Your task to perform on an android device: Search for Italian restaurants on Maps Image 0: 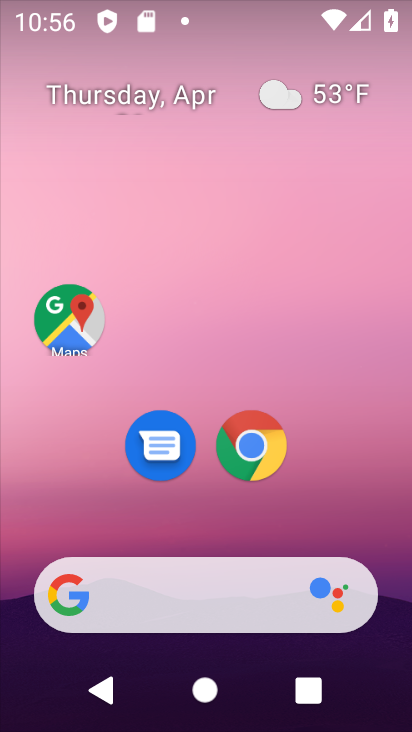
Step 0: drag from (185, 596) to (321, 107)
Your task to perform on an android device: Search for Italian restaurants on Maps Image 1: 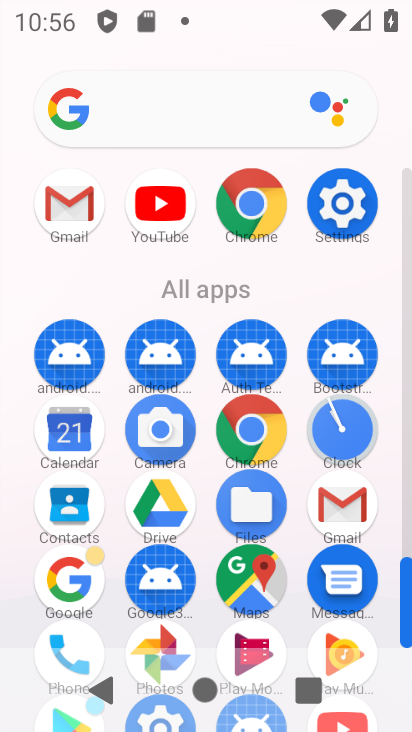
Step 1: click (260, 587)
Your task to perform on an android device: Search for Italian restaurants on Maps Image 2: 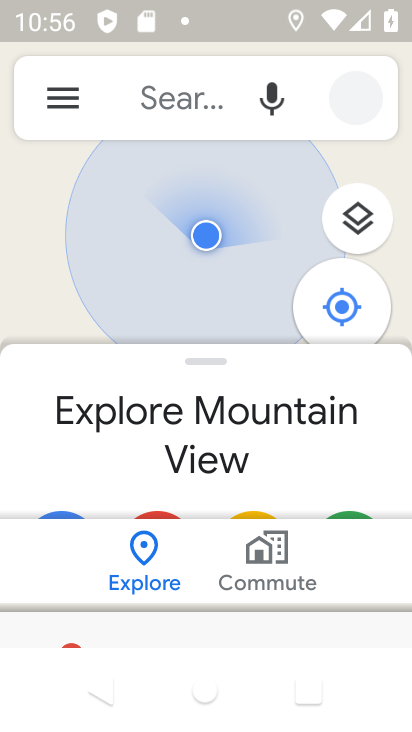
Step 2: click (180, 99)
Your task to perform on an android device: Search for Italian restaurants on Maps Image 3: 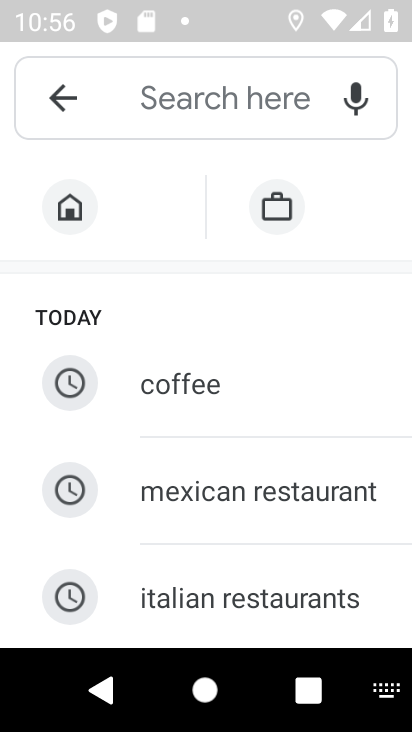
Step 3: click (186, 595)
Your task to perform on an android device: Search for Italian restaurants on Maps Image 4: 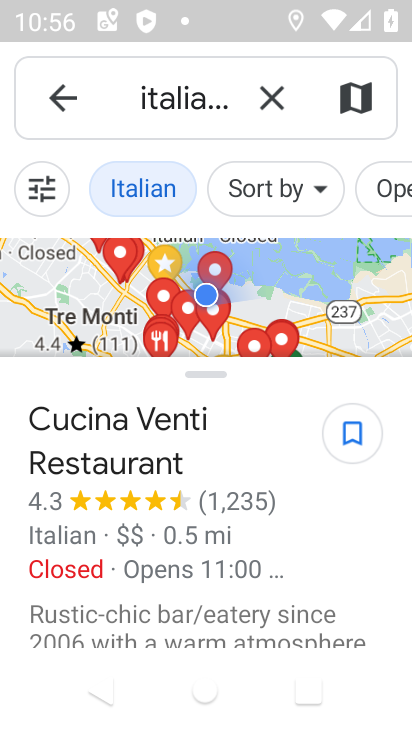
Step 4: task complete